Your task to perform on an android device: Open Chrome and go to the settings page Image 0: 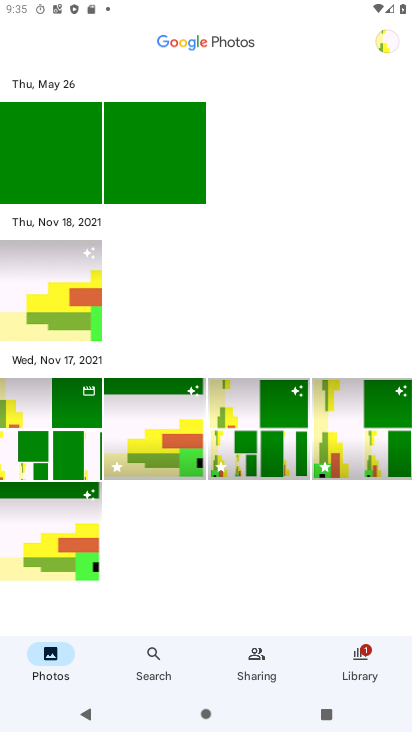
Step 0: press home button
Your task to perform on an android device: Open Chrome and go to the settings page Image 1: 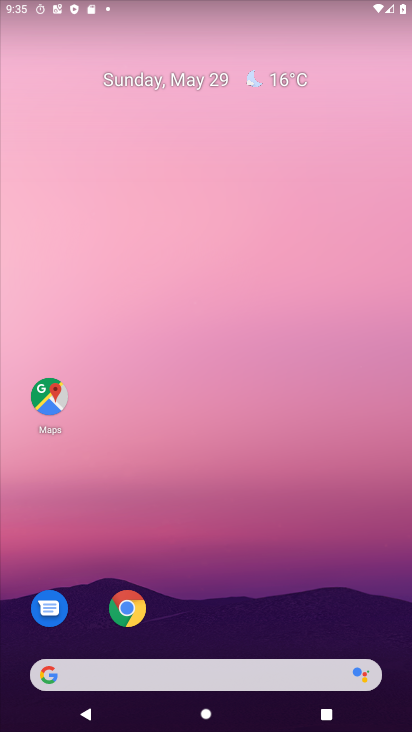
Step 1: click (134, 625)
Your task to perform on an android device: Open Chrome and go to the settings page Image 2: 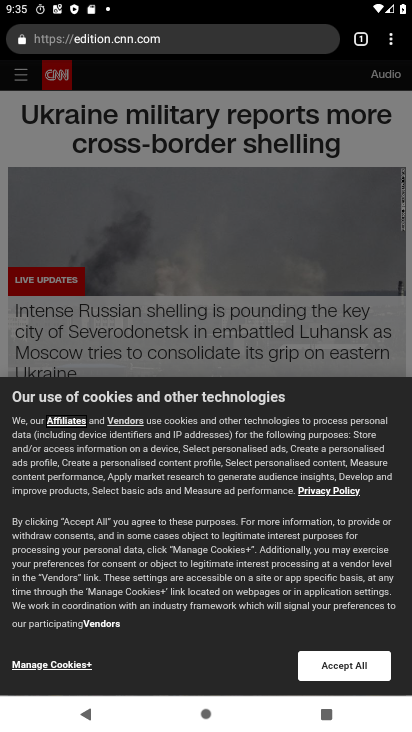
Step 2: click (393, 39)
Your task to perform on an android device: Open Chrome and go to the settings page Image 3: 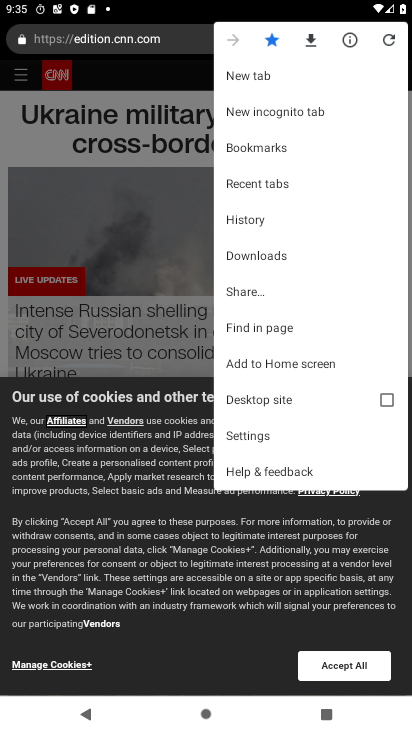
Step 3: click (248, 438)
Your task to perform on an android device: Open Chrome and go to the settings page Image 4: 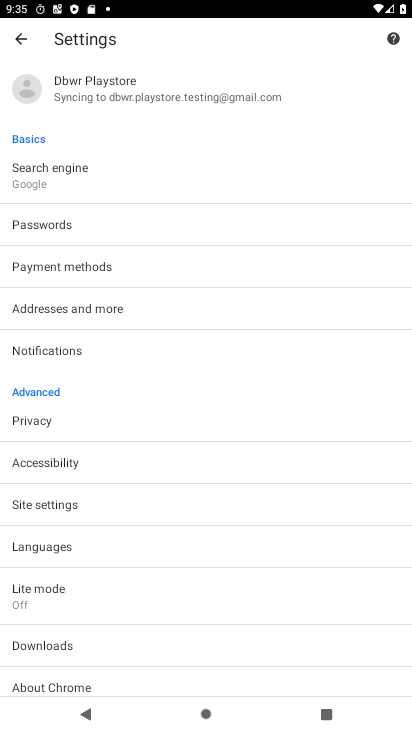
Step 4: task complete